Your task to perform on an android device: all mails in gmail Image 0: 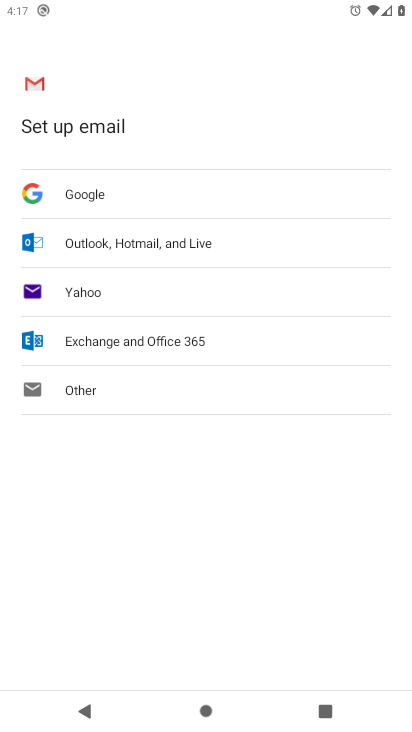
Step 0: press home button
Your task to perform on an android device: all mails in gmail Image 1: 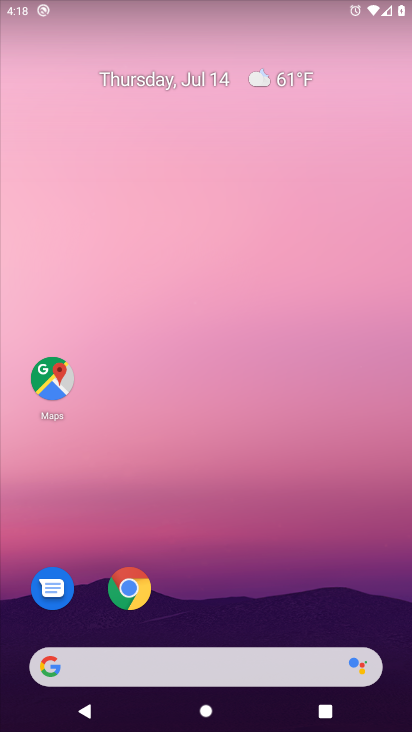
Step 1: drag from (245, 626) to (262, 126)
Your task to perform on an android device: all mails in gmail Image 2: 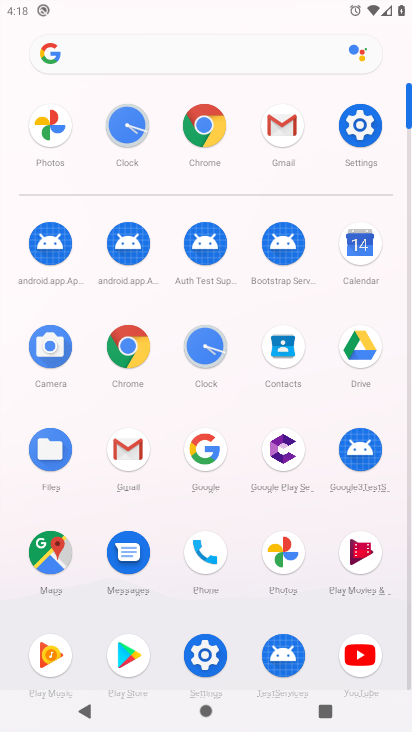
Step 2: click (279, 137)
Your task to perform on an android device: all mails in gmail Image 3: 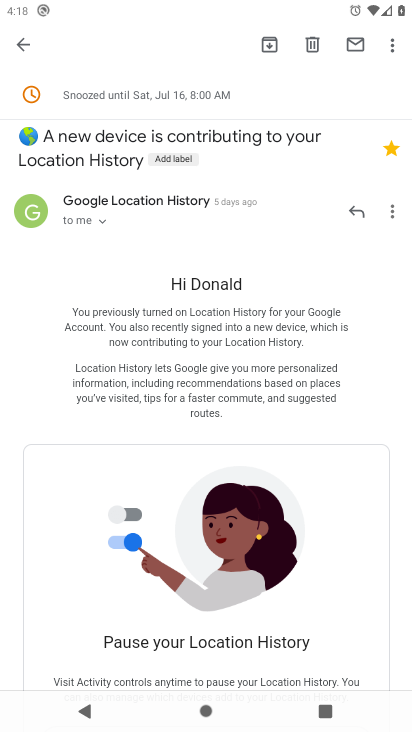
Step 3: click (29, 45)
Your task to perform on an android device: all mails in gmail Image 4: 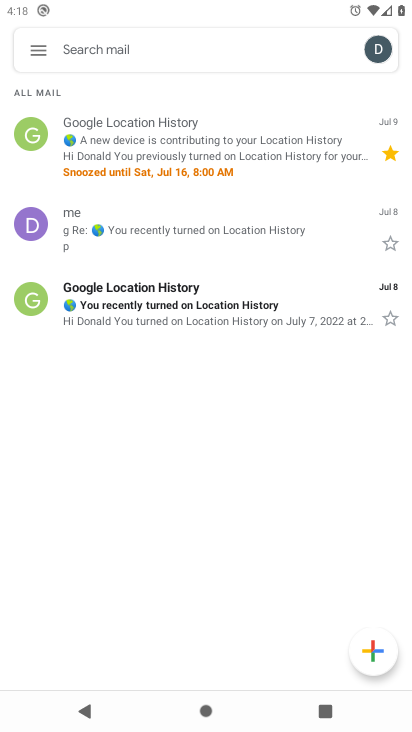
Step 4: click (25, 43)
Your task to perform on an android device: all mails in gmail Image 5: 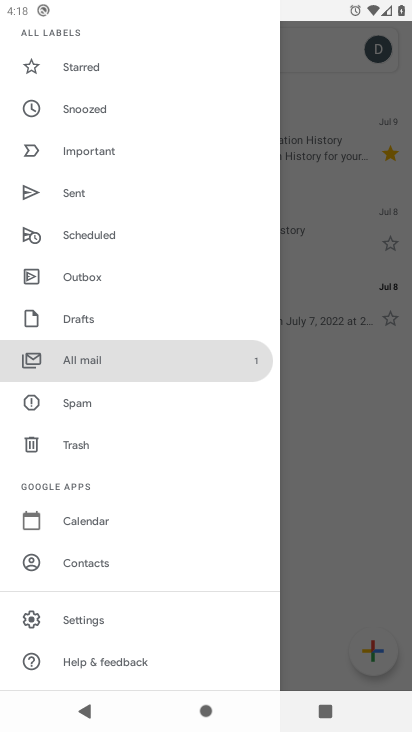
Step 5: click (92, 355)
Your task to perform on an android device: all mails in gmail Image 6: 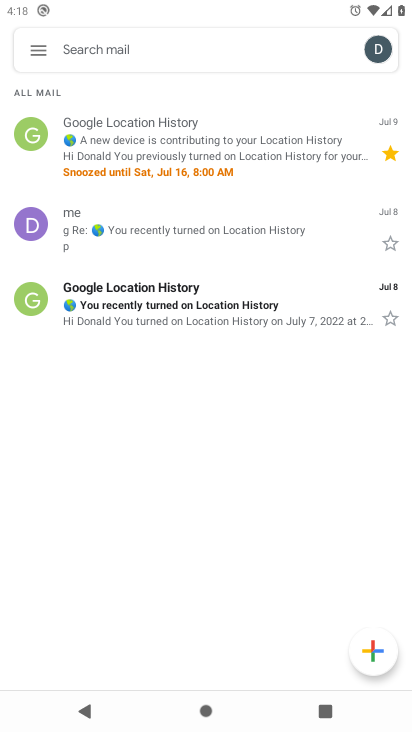
Step 6: task complete